Your task to perform on an android device: Check the weather Image 0: 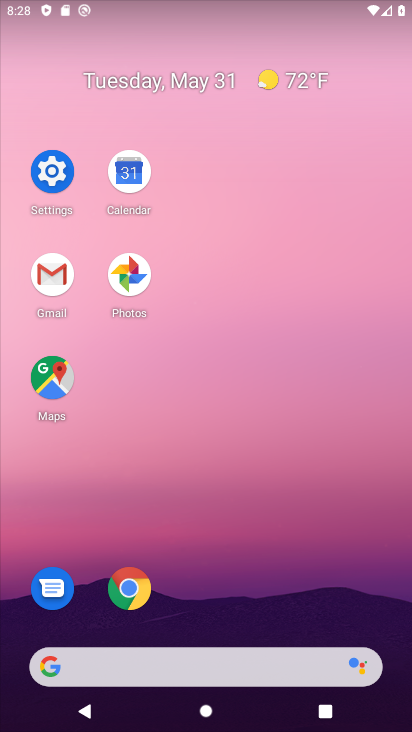
Step 0: drag from (299, 580) to (377, 152)
Your task to perform on an android device: Check the weather Image 1: 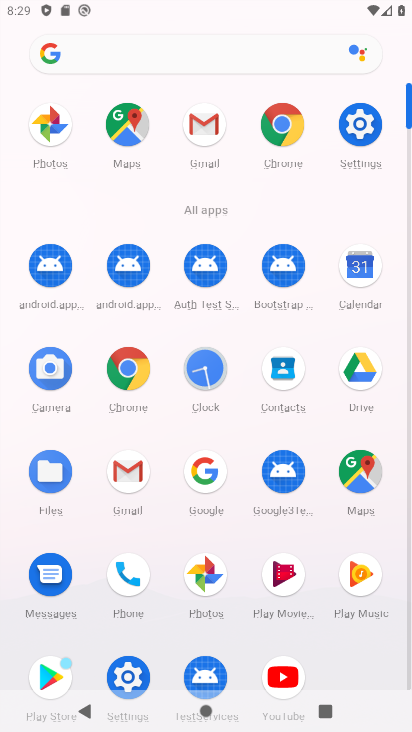
Step 1: click (214, 473)
Your task to perform on an android device: Check the weather Image 2: 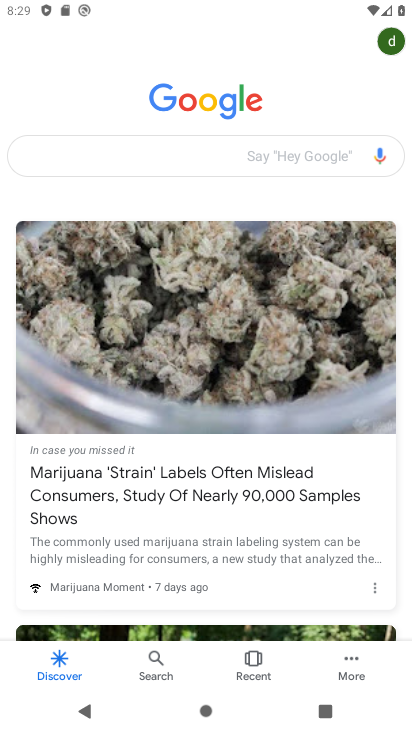
Step 2: click (199, 152)
Your task to perform on an android device: Check the weather Image 3: 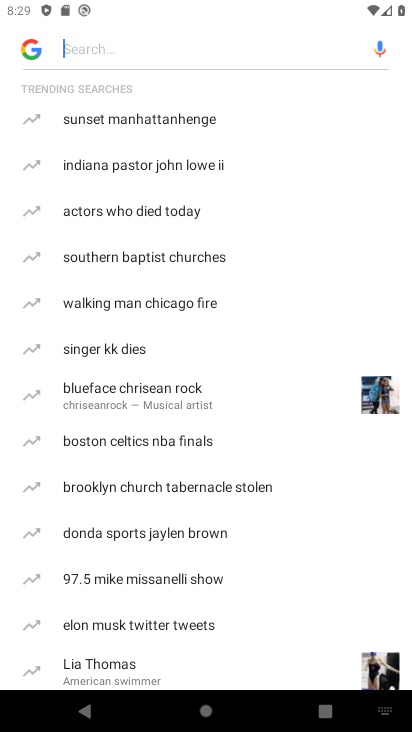
Step 3: drag from (239, 508) to (290, 152)
Your task to perform on an android device: Check the weather Image 4: 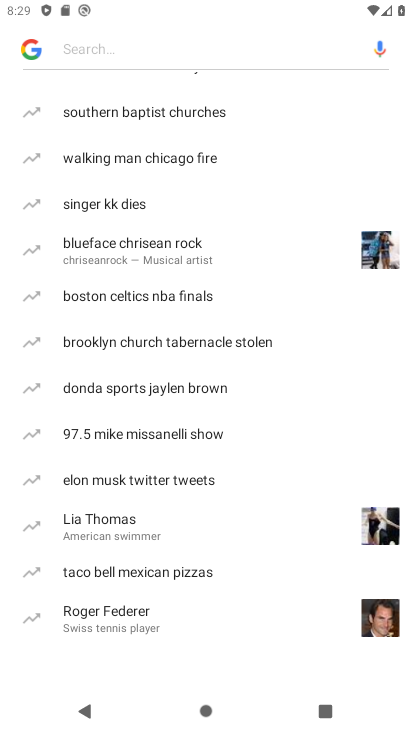
Step 4: type "weather"
Your task to perform on an android device: Check the weather Image 5: 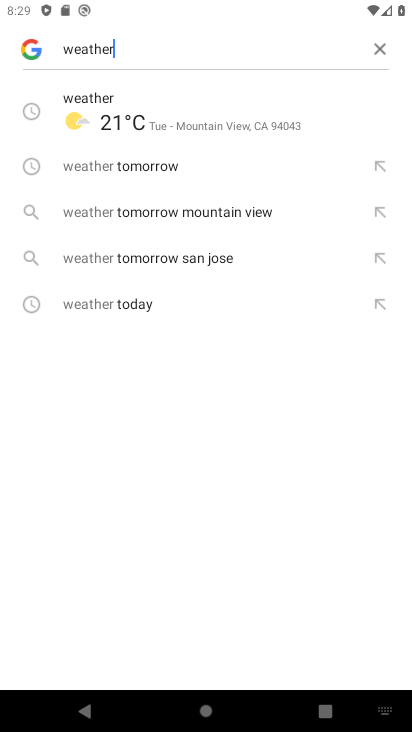
Step 5: click (144, 94)
Your task to perform on an android device: Check the weather Image 6: 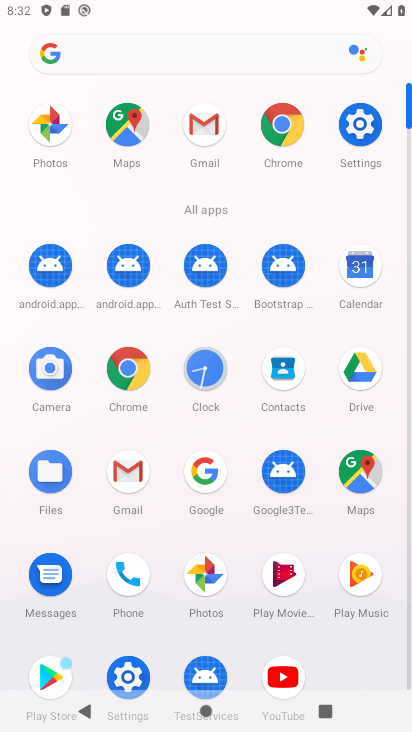
Step 6: press home button
Your task to perform on an android device: Check the weather Image 7: 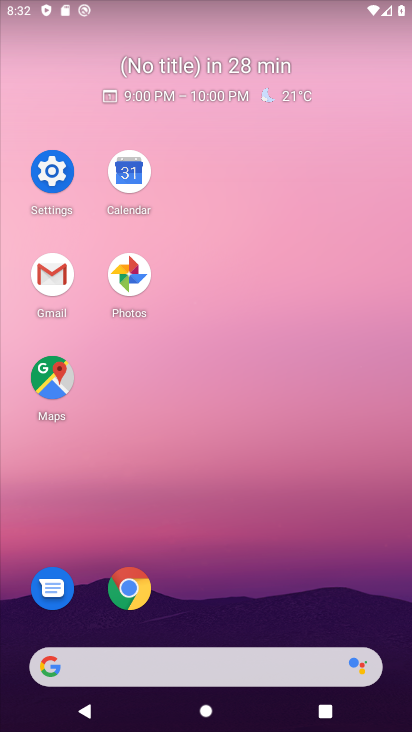
Step 7: drag from (201, 502) to (268, 127)
Your task to perform on an android device: Check the weather Image 8: 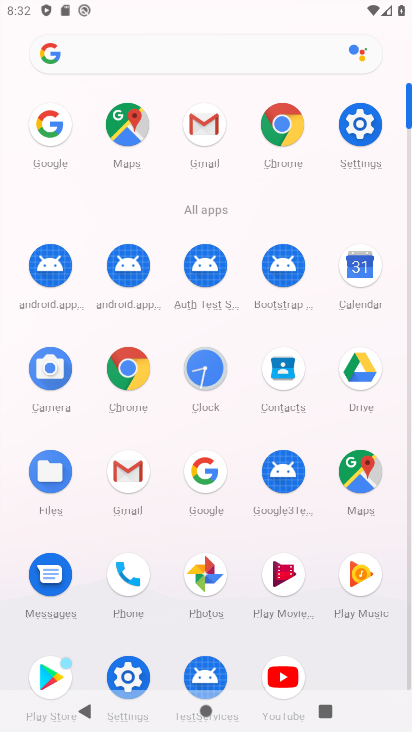
Step 8: click (215, 498)
Your task to perform on an android device: Check the weather Image 9: 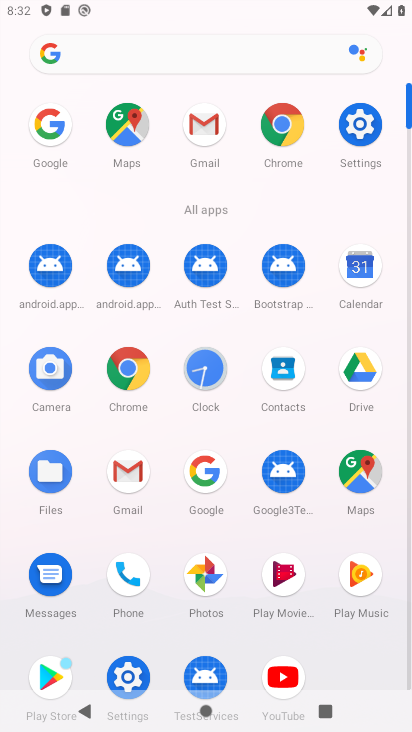
Step 9: click (204, 477)
Your task to perform on an android device: Check the weather Image 10: 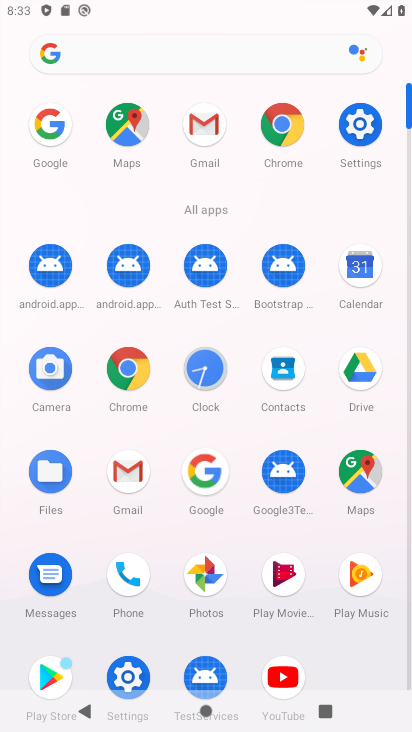
Step 10: click (208, 487)
Your task to perform on an android device: Check the weather Image 11: 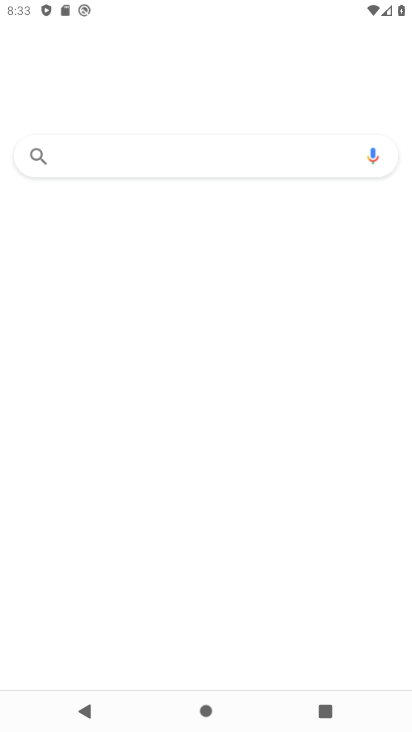
Step 11: click (234, 141)
Your task to perform on an android device: Check the weather Image 12: 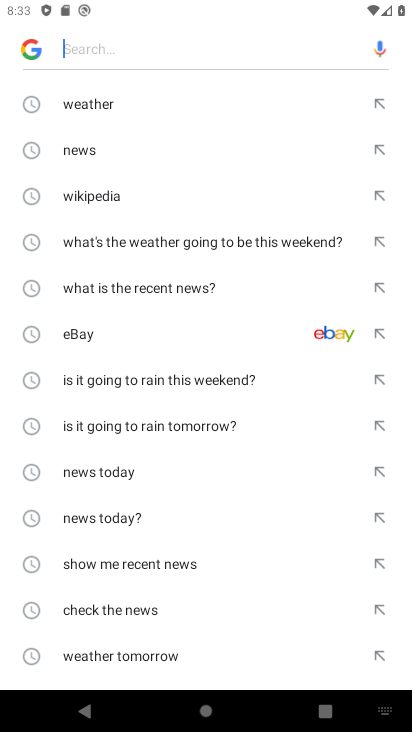
Step 12: click (107, 88)
Your task to perform on an android device: Check the weather Image 13: 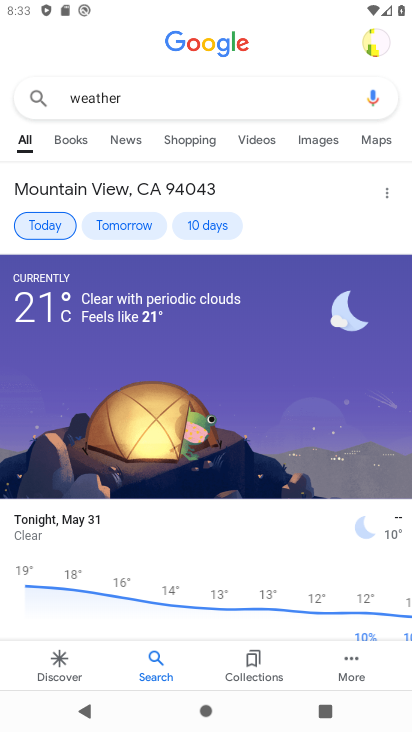
Step 13: task complete